Your task to perform on an android device: Set the phone to "Do not disturb". Image 0: 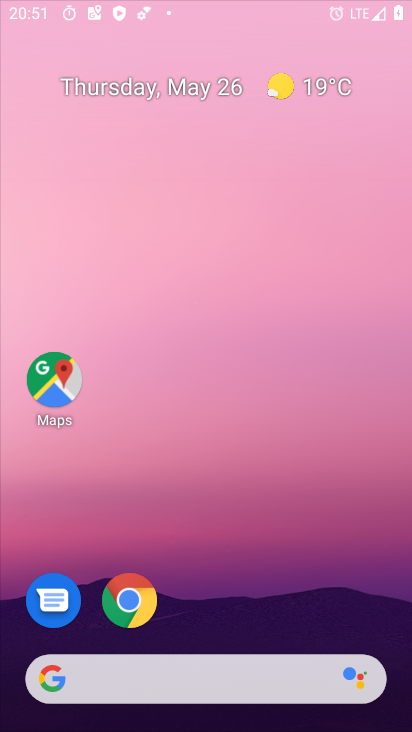
Step 0: press home button
Your task to perform on an android device: Set the phone to "Do not disturb". Image 1: 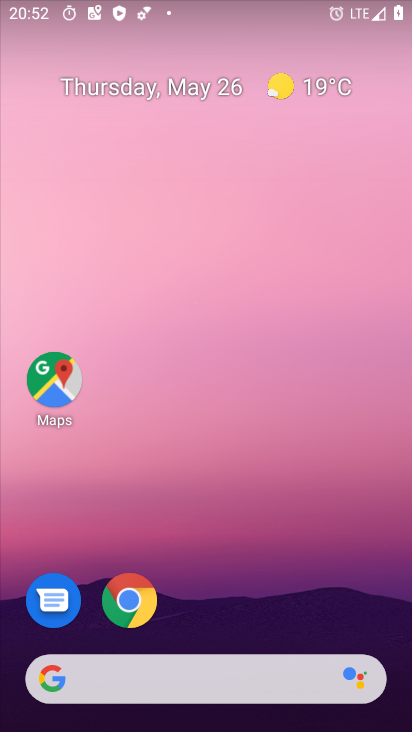
Step 1: press home button
Your task to perform on an android device: Set the phone to "Do not disturb". Image 2: 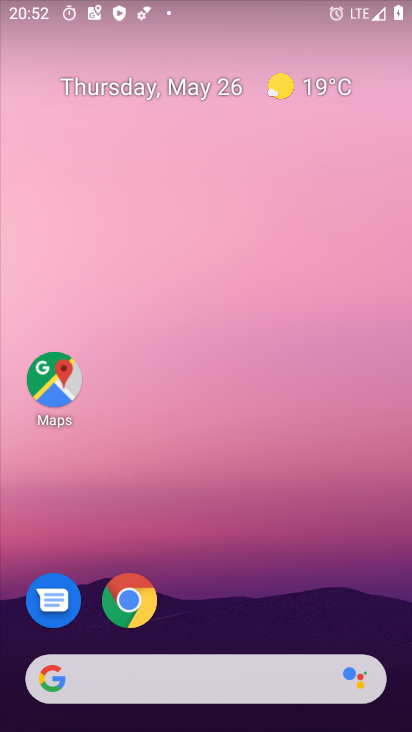
Step 2: drag from (225, 18) to (287, 344)
Your task to perform on an android device: Set the phone to "Do not disturb". Image 3: 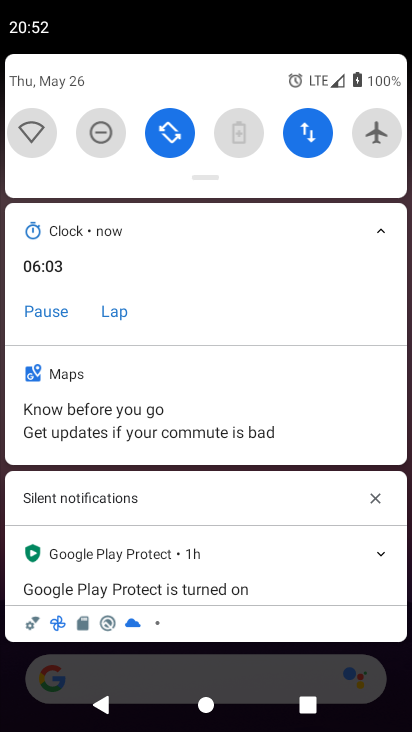
Step 3: drag from (223, 208) to (247, 370)
Your task to perform on an android device: Set the phone to "Do not disturb". Image 4: 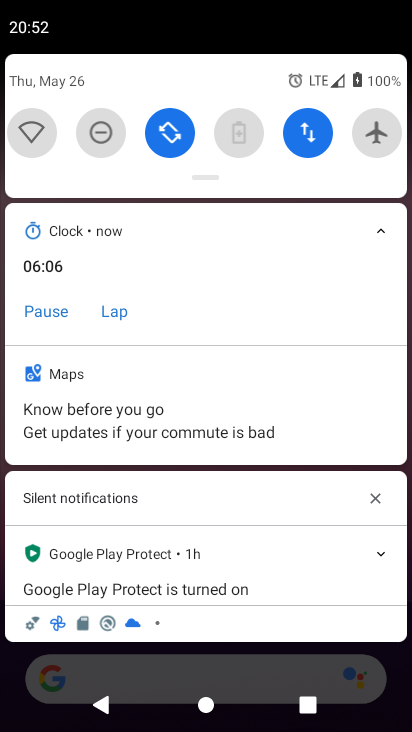
Step 4: drag from (207, 179) to (223, 506)
Your task to perform on an android device: Set the phone to "Do not disturb". Image 5: 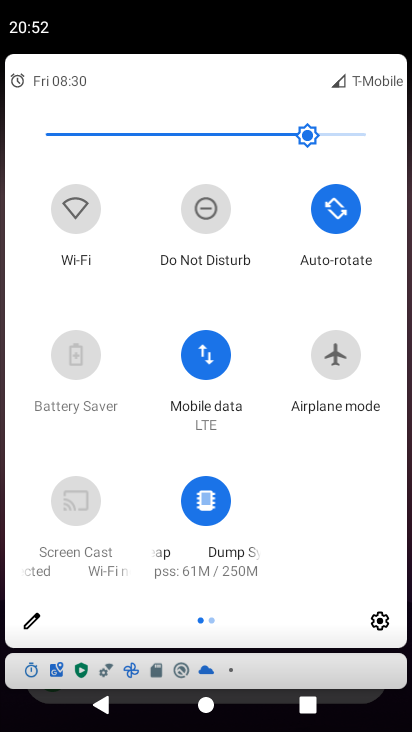
Step 5: click (203, 206)
Your task to perform on an android device: Set the phone to "Do not disturb". Image 6: 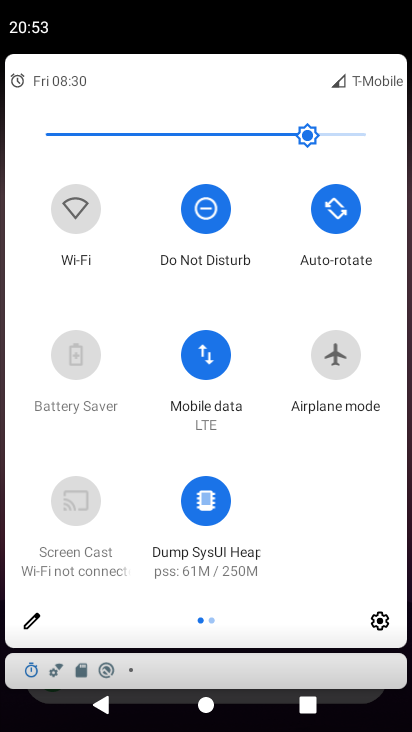
Step 6: task complete